Your task to perform on an android device: Open ESPN.com Image 0: 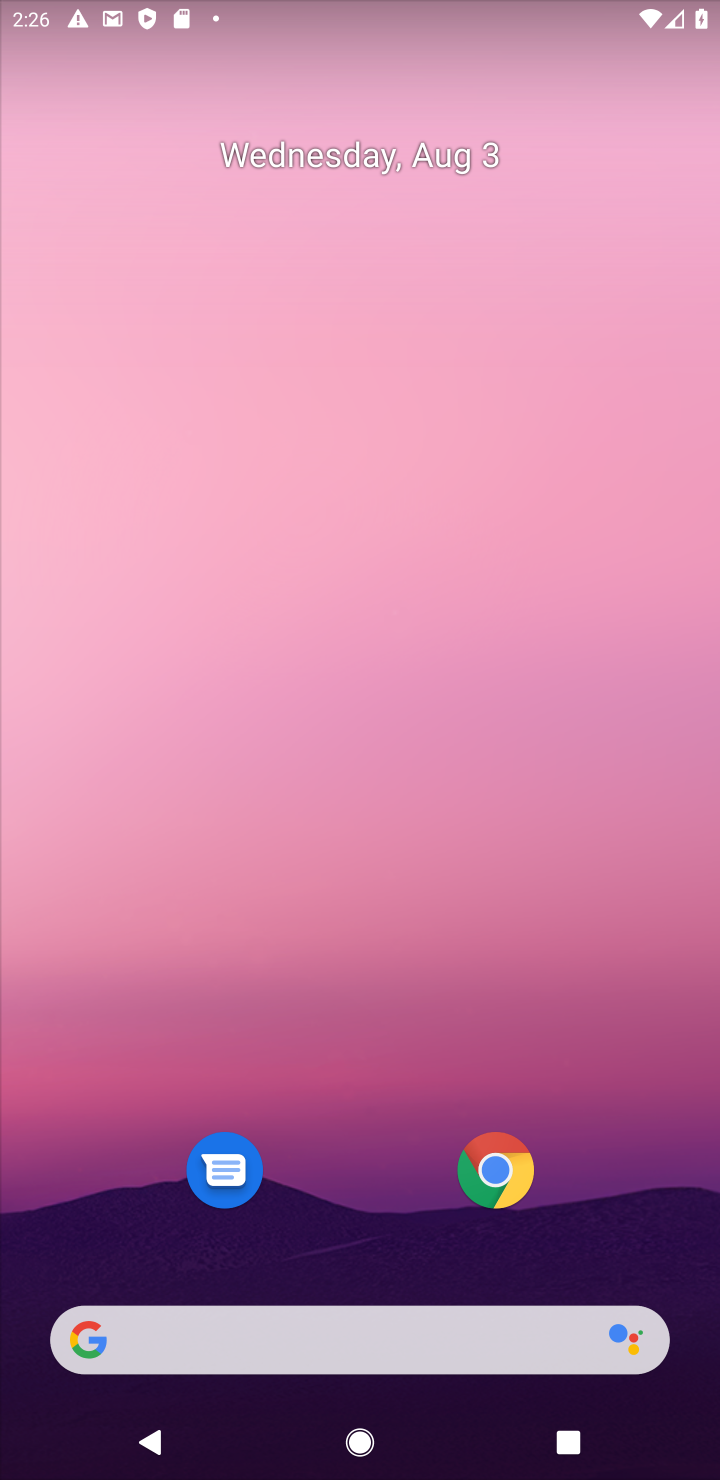
Step 0: click (495, 1173)
Your task to perform on an android device: Open ESPN.com Image 1: 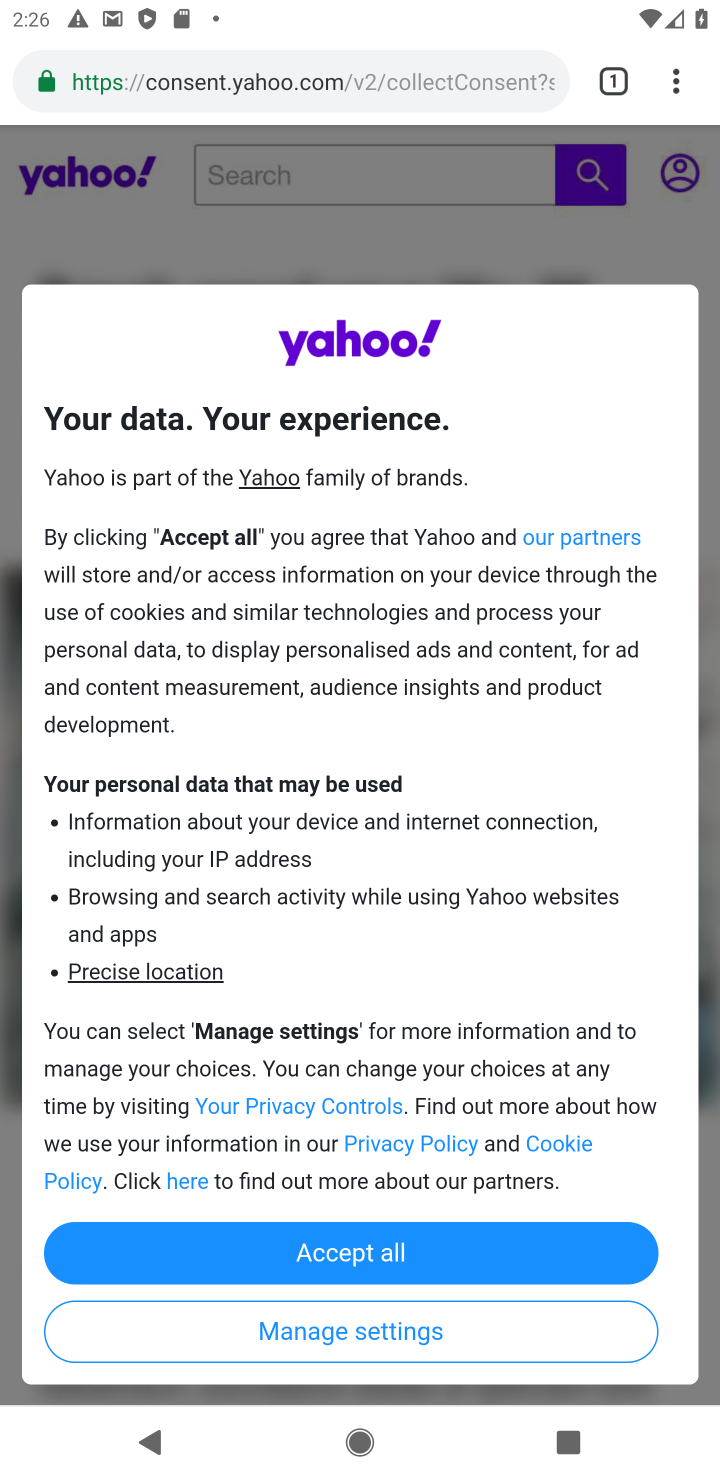
Step 1: click (330, 62)
Your task to perform on an android device: Open ESPN.com Image 2: 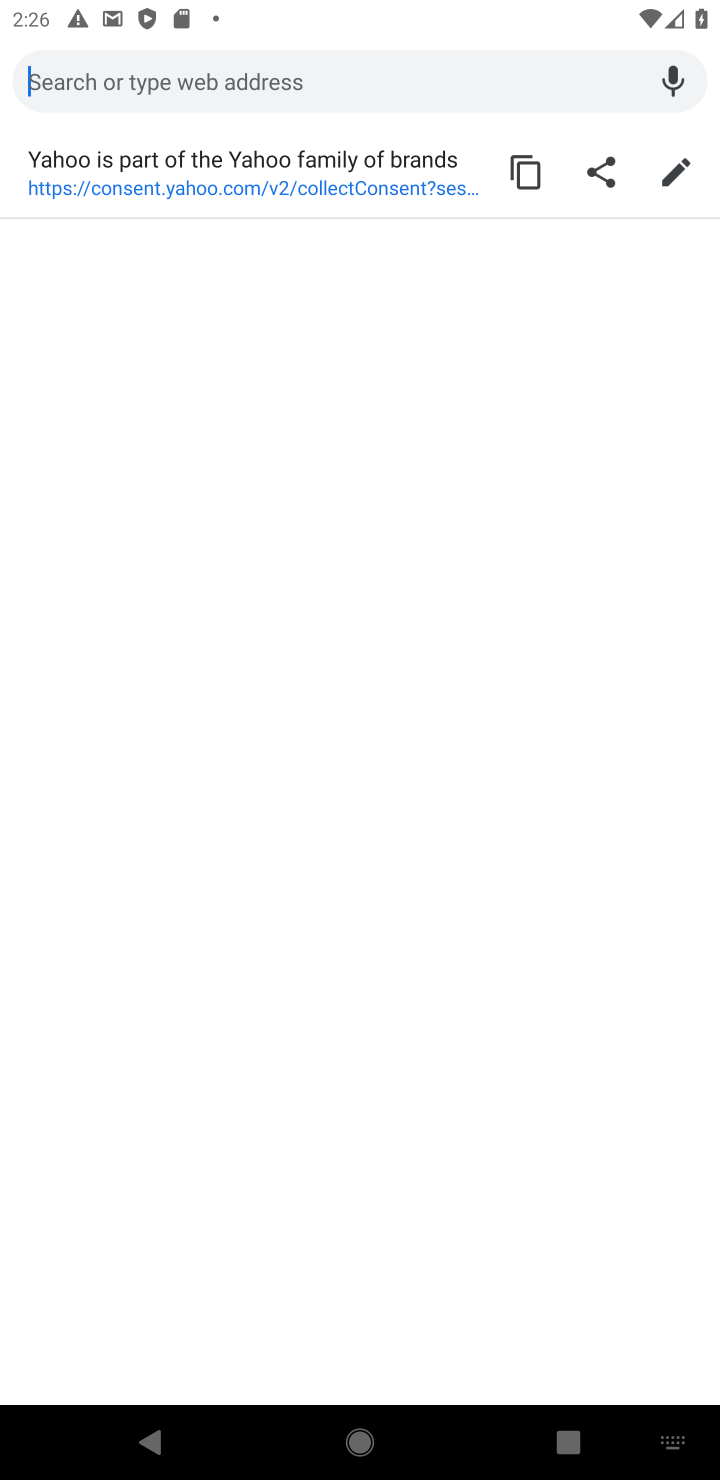
Step 2: type "Espn.com"
Your task to perform on an android device: Open ESPN.com Image 3: 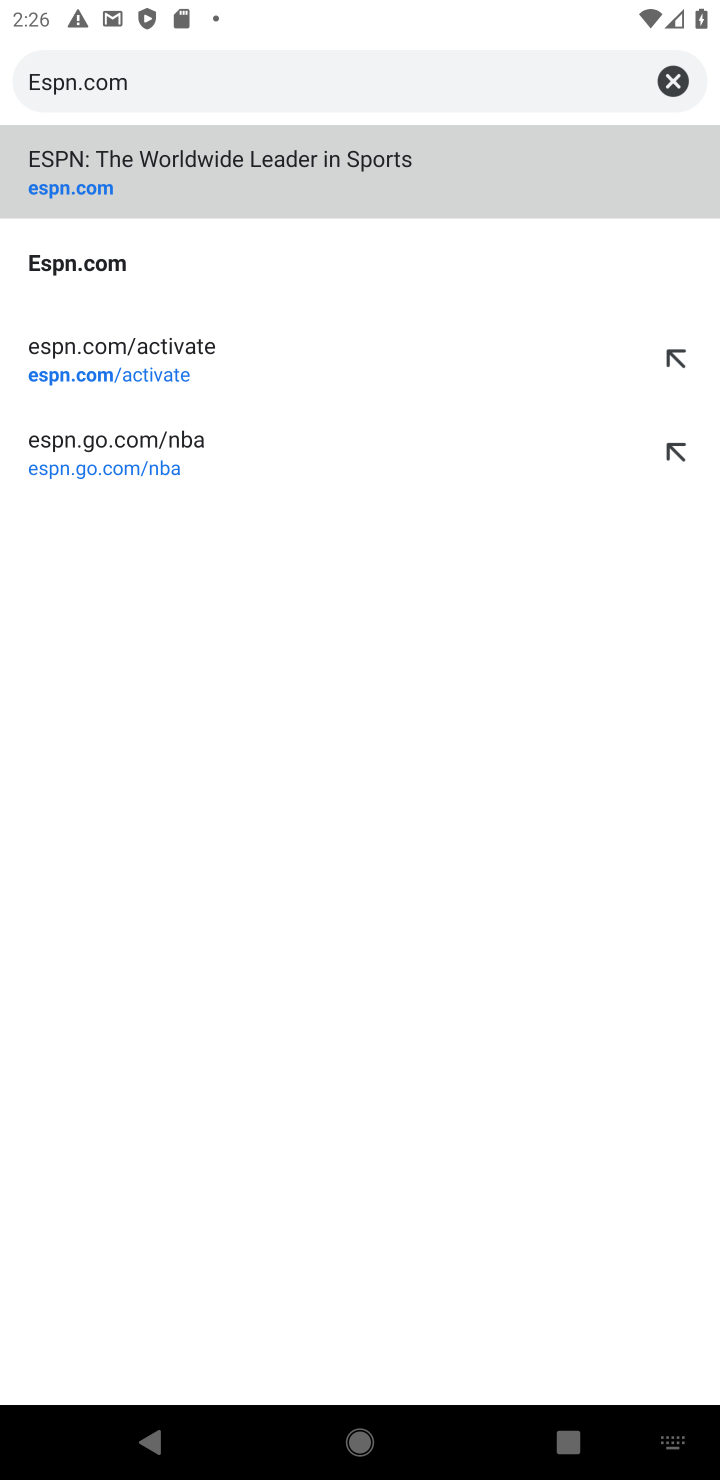
Step 3: click (315, 142)
Your task to perform on an android device: Open ESPN.com Image 4: 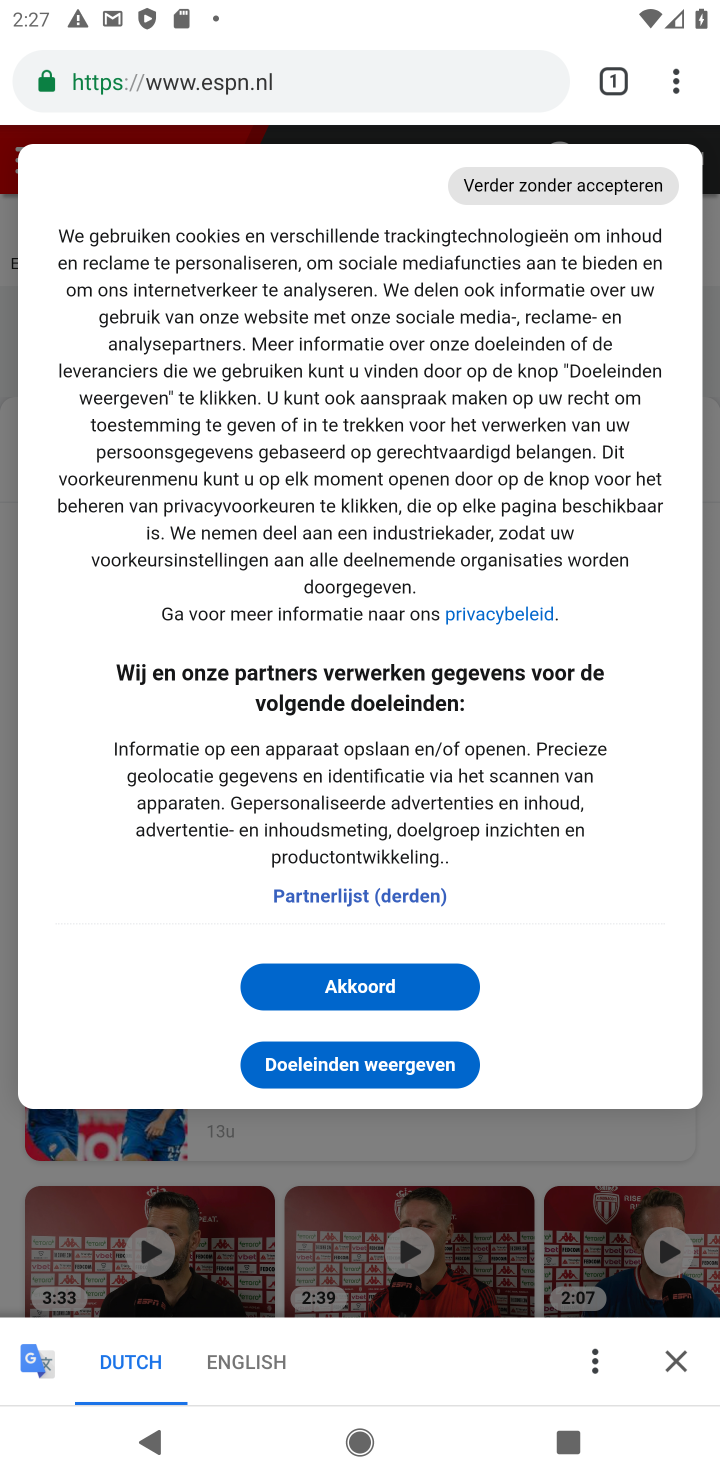
Step 4: task complete